Your task to perform on an android device: turn off location Image 0: 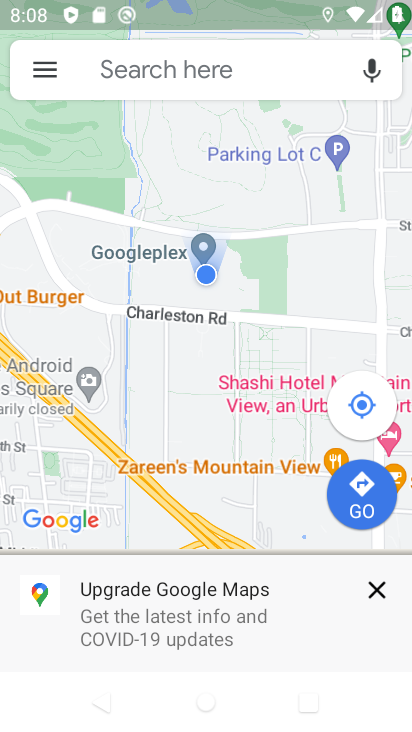
Step 0: press home button
Your task to perform on an android device: turn off location Image 1: 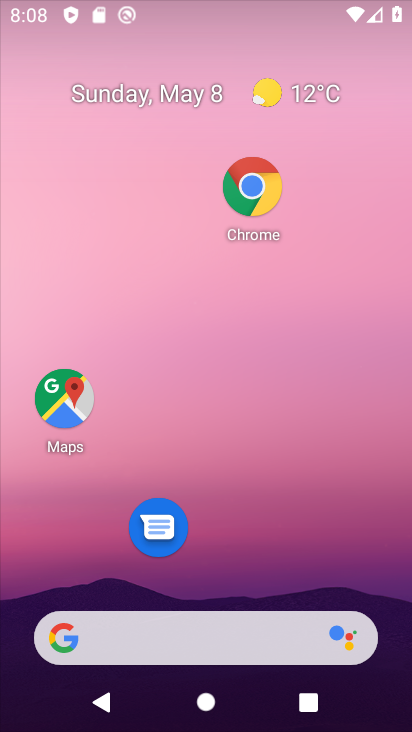
Step 1: drag from (318, 370) to (351, 122)
Your task to perform on an android device: turn off location Image 2: 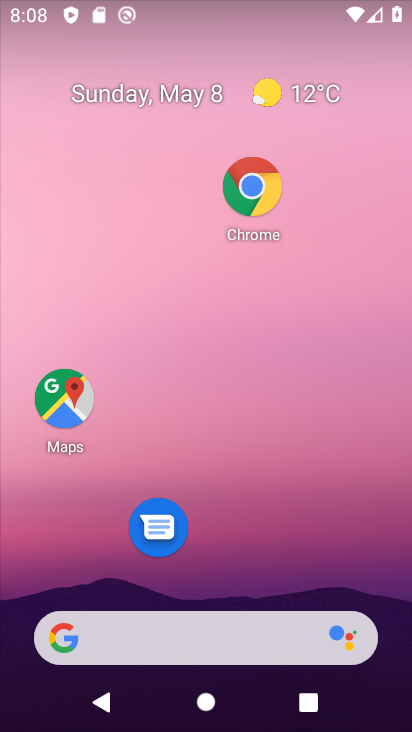
Step 2: drag from (244, 533) to (205, 170)
Your task to perform on an android device: turn off location Image 3: 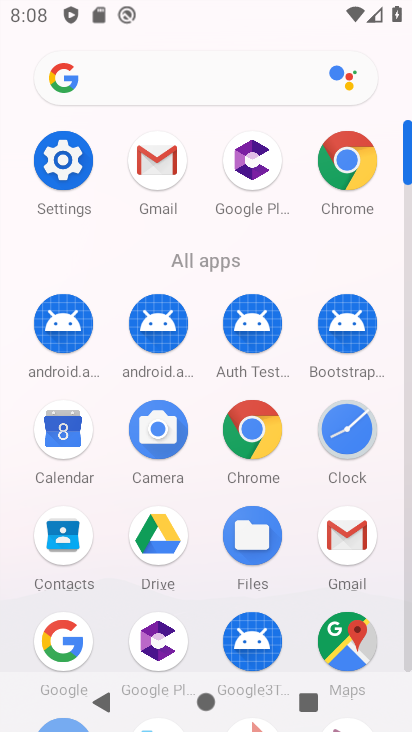
Step 3: click (43, 159)
Your task to perform on an android device: turn off location Image 4: 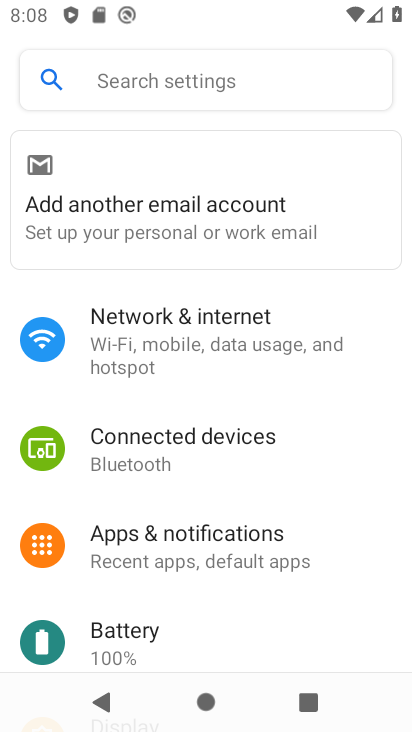
Step 4: drag from (237, 568) to (329, 55)
Your task to perform on an android device: turn off location Image 5: 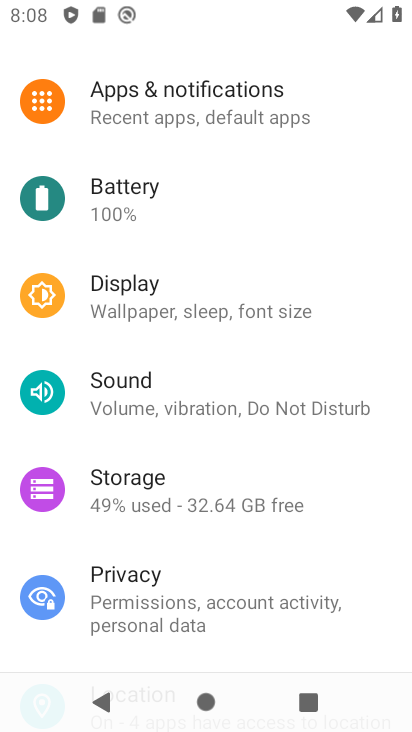
Step 5: drag from (193, 547) to (293, 118)
Your task to perform on an android device: turn off location Image 6: 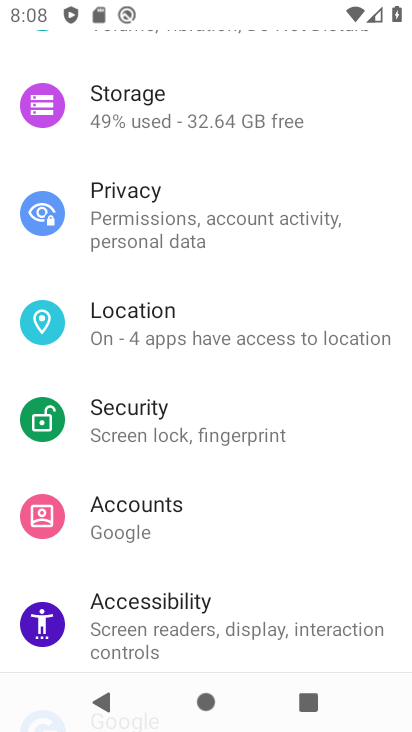
Step 6: click (159, 338)
Your task to perform on an android device: turn off location Image 7: 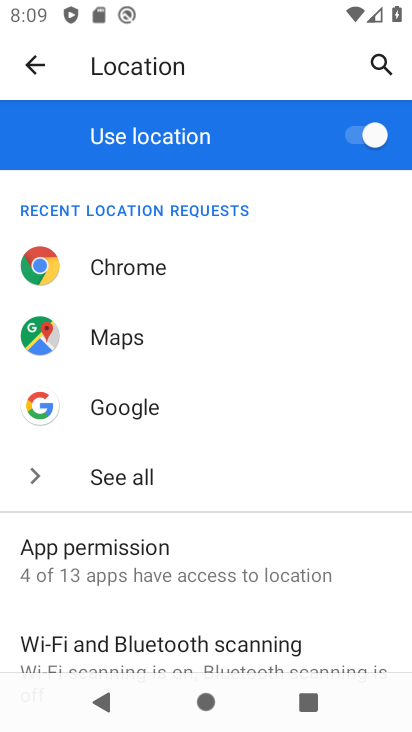
Step 7: click (352, 127)
Your task to perform on an android device: turn off location Image 8: 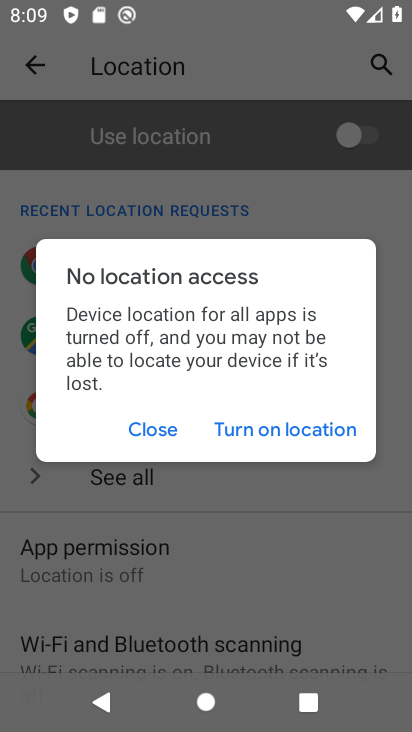
Step 8: click (150, 429)
Your task to perform on an android device: turn off location Image 9: 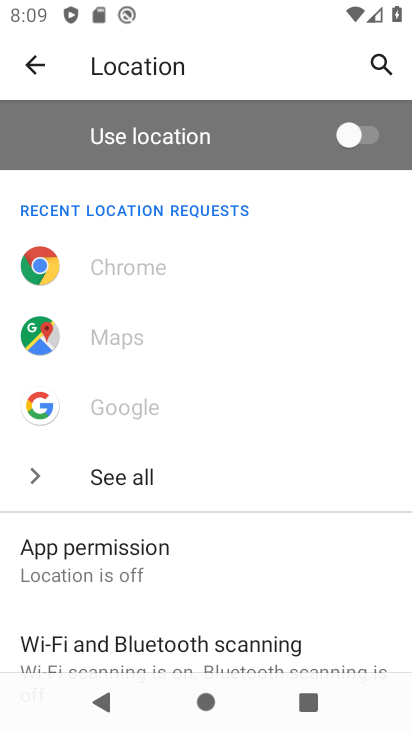
Step 9: task complete